Your task to perform on an android device: set the timer Image 0: 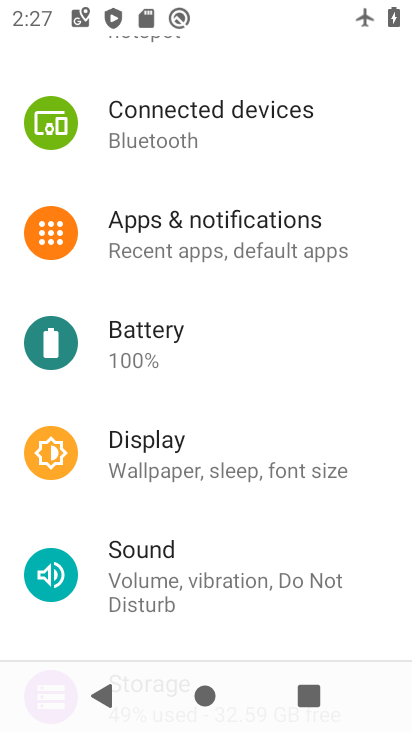
Step 0: press home button
Your task to perform on an android device: set the timer Image 1: 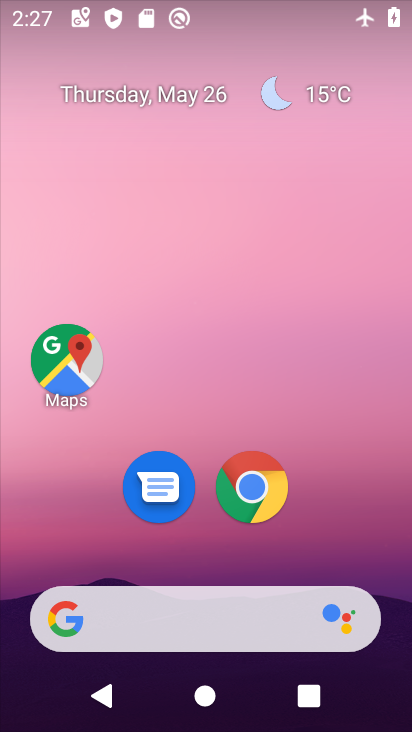
Step 1: drag from (200, 561) to (207, 317)
Your task to perform on an android device: set the timer Image 2: 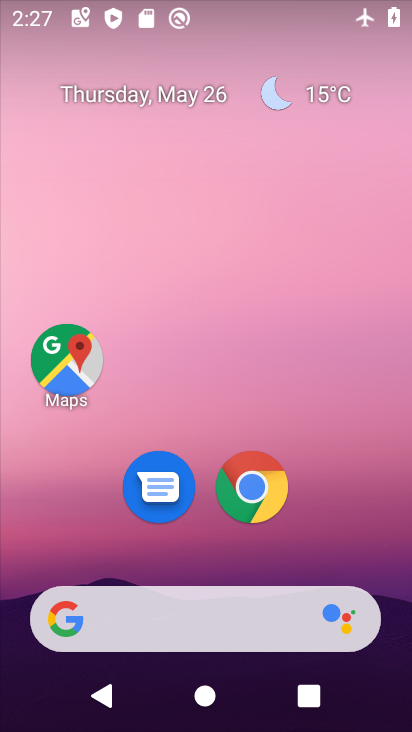
Step 2: drag from (205, 558) to (225, 287)
Your task to perform on an android device: set the timer Image 3: 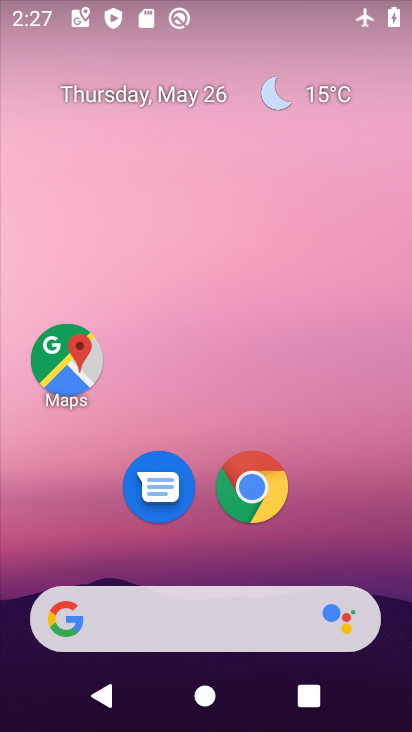
Step 3: drag from (196, 541) to (224, 151)
Your task to perform on an android device: set the timer Image 4: 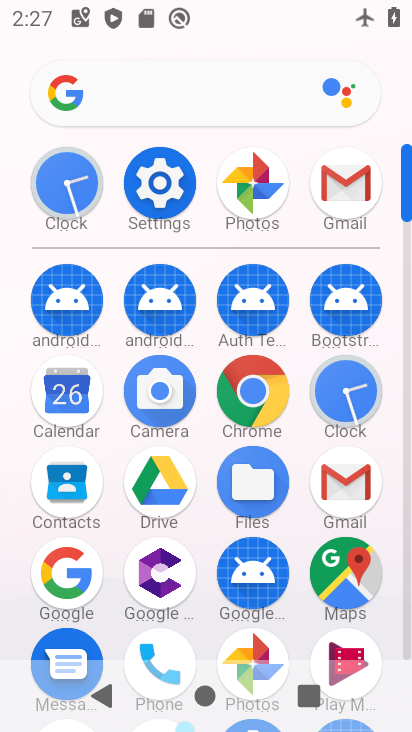
Step 4: click (360, 379)
Your task to perform on an android device: set the timer Image 5: 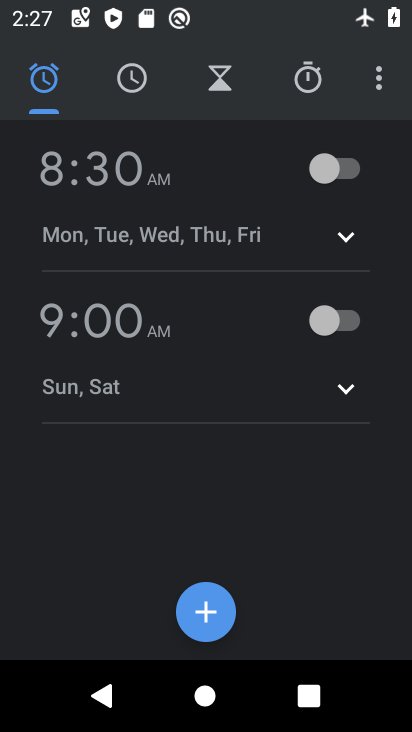
Step 5: click (228, 78)
Your task to perform on an android device: set the timer Image 6: 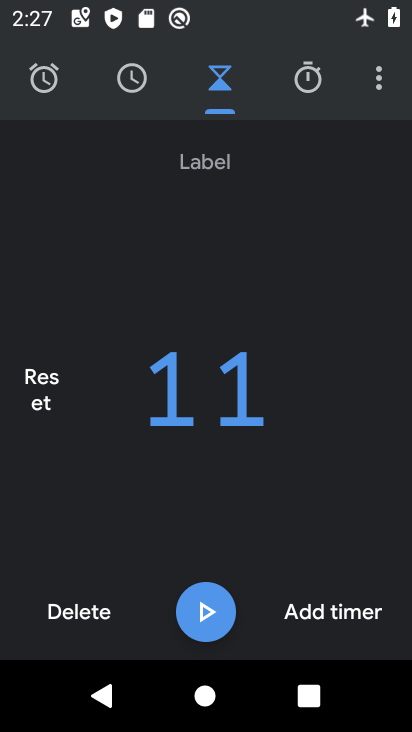
Step 6: click (220, 609)
Your task to perform on an android device: set the timer Image 7: 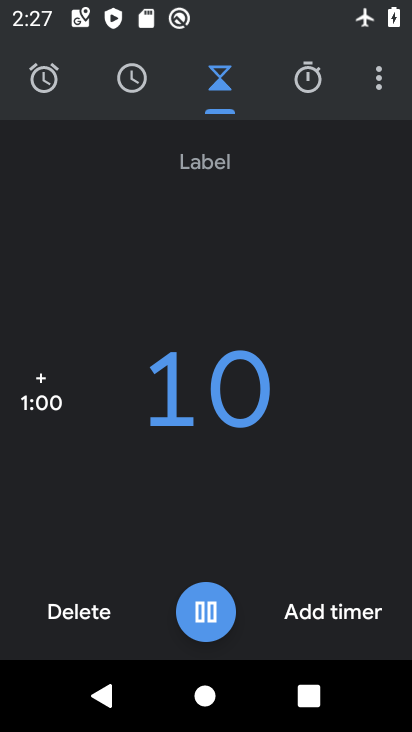
Step 7: task complete